Your task to perform on an android device: turn off wifi Image 0: 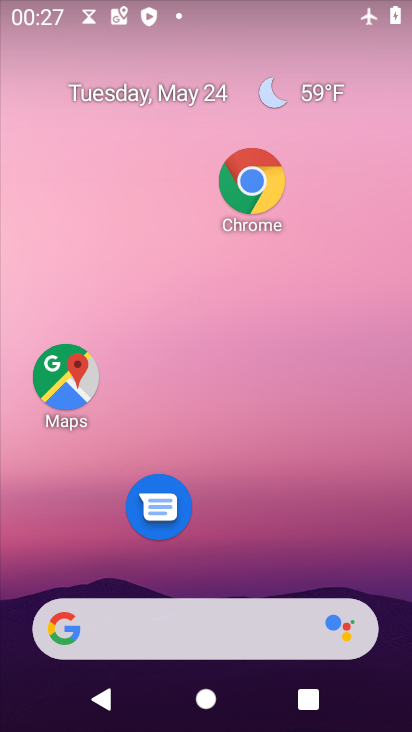
Step 0: drag from (272, 487) to (345, 227)
Your task to perform on an android device: turn off wifi Image 1: 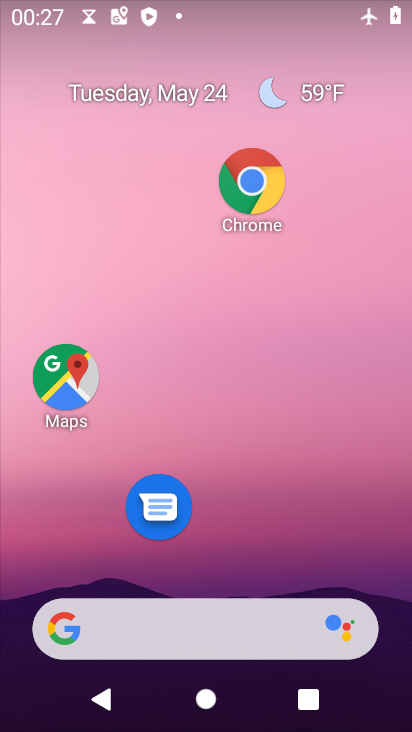
Step 1: drag from (288, 543) to (377, 165)
Your task to perform on an android device: turn off wifi Image 2: 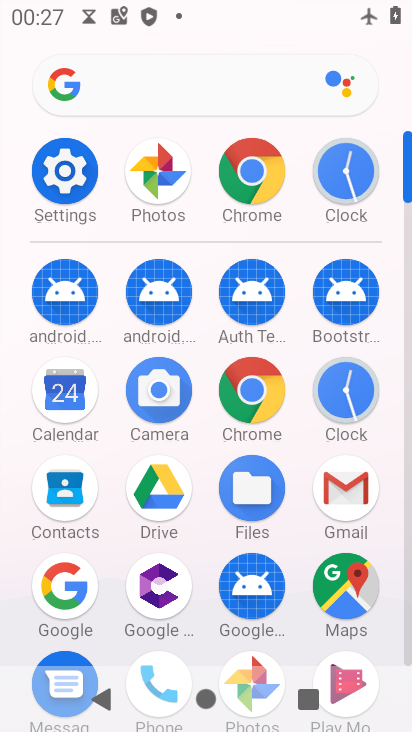
Step 2: click (57, 161)
Your task to perform on an android device: turn off wifi Image 3: 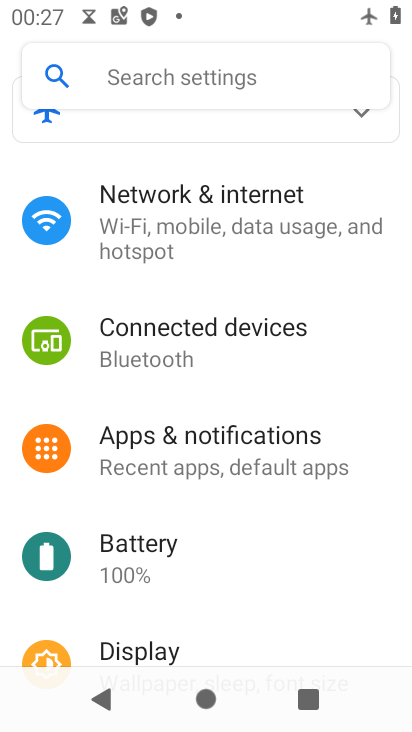
Step 3: click (236, 237)
Your task to perform on an android device: turn off wifi Image 4: 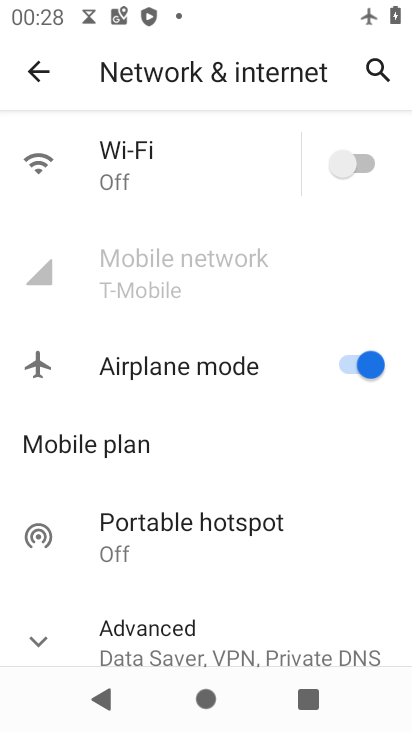
Step 4: task complete